Your task to perform on an android device: read, delete, or share a saved page in the chrome app Image 0: 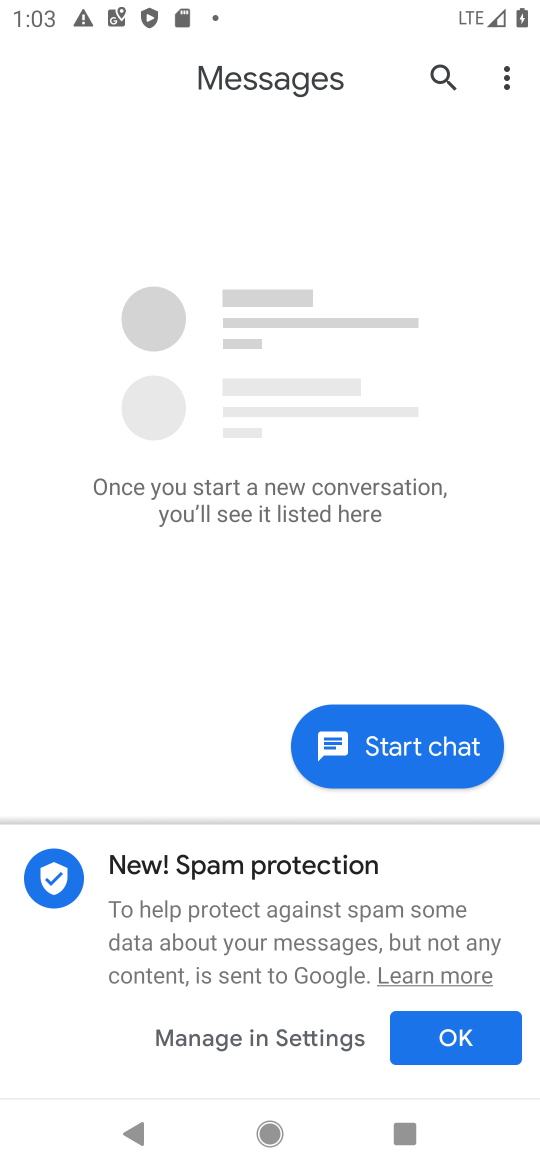
Step 0: press home button
Your task to perform on an android device: read, delete, or share a saved page in the chrome app Image 1: 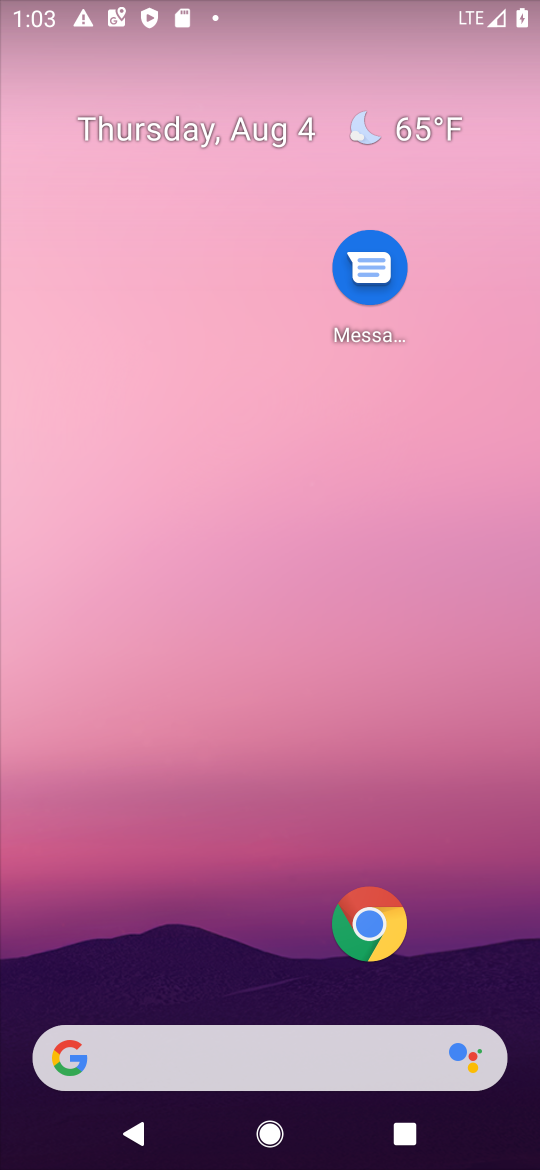
Step 1: click (351, 904)
Your task to perform on an android device: read, delete, or share a saved page in the chrome app Image 2: 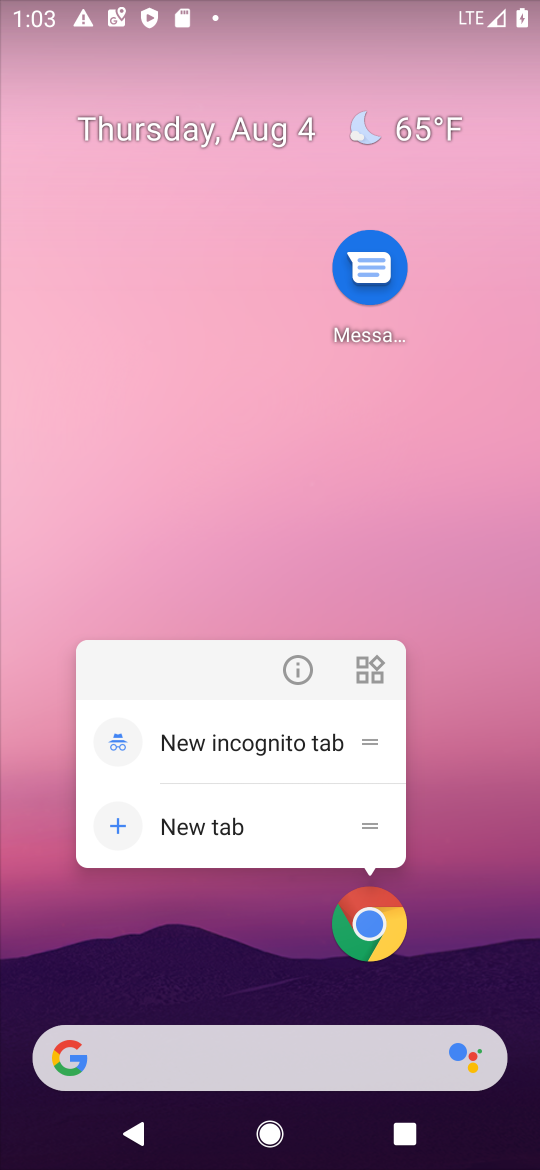
Step 2: click (381, 918)
Your task to perform on an android device: read, delete, or share a saved page in the chrome app Image 3: 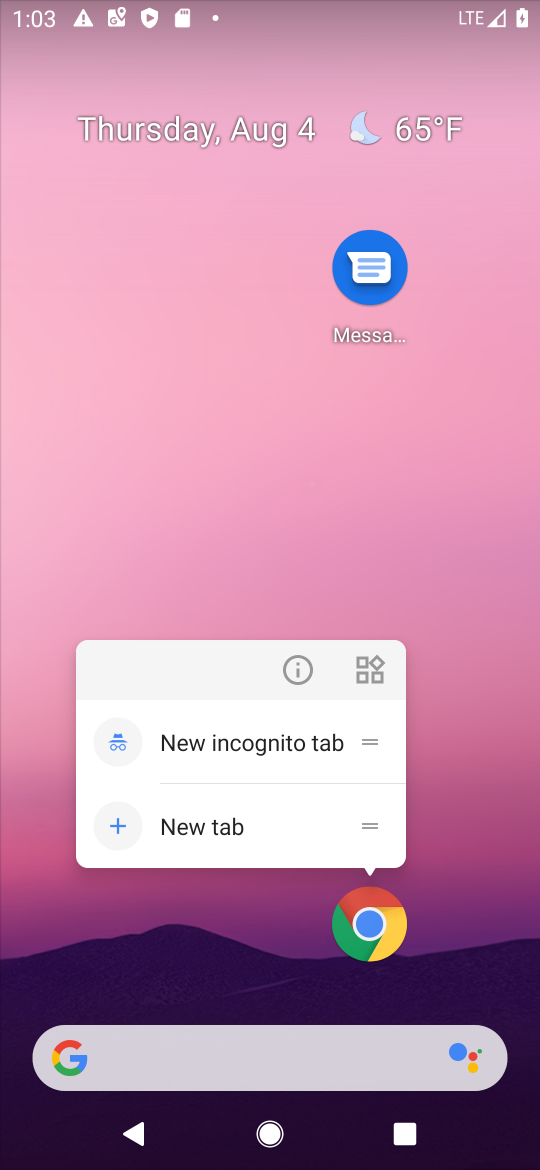
Step 3: click (386, 913)
Your task to perform on an android device: read, delete, or share a saved page in the chrome app Image 4: 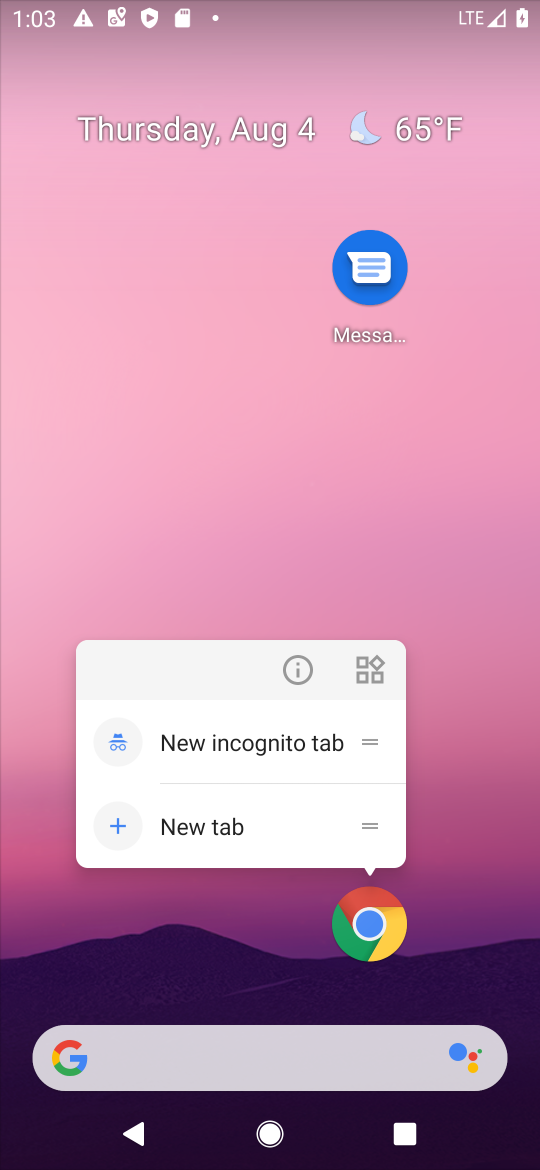
Step 4: task complete